Your task to perform on an android device: Go to Yahoo.com Image 0: 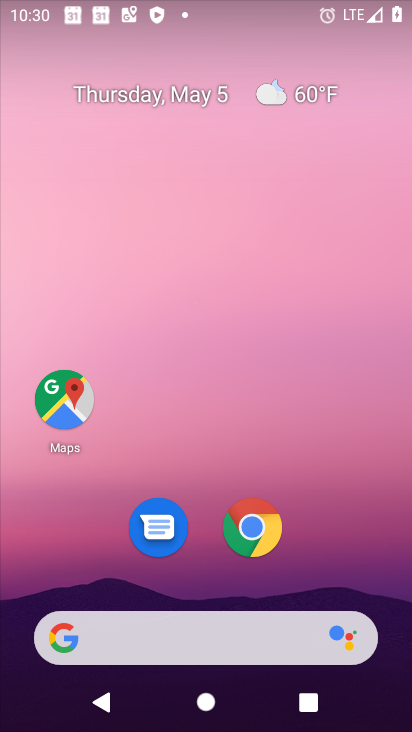
Step 0: click (220, 645)
Your task to perform on an android device: Go to Yahoo.com Image 1: 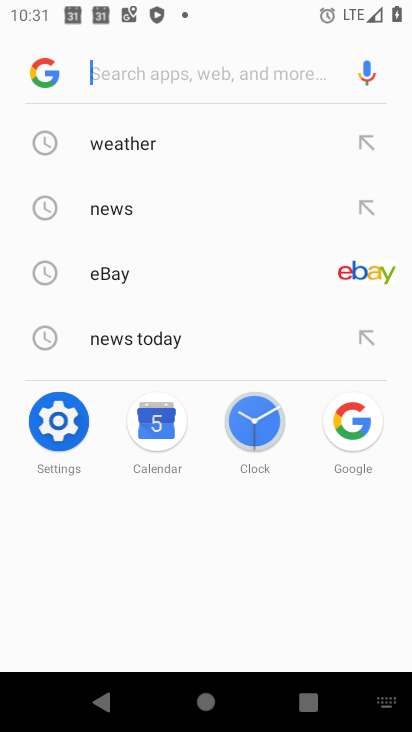
Step 1: type "yahoo.com"
Your task to perform on an android device: Go to Yahoo.com Image 2: 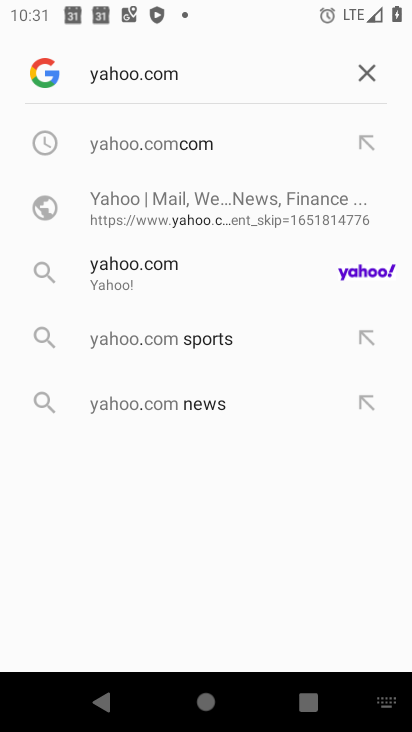
Step 2: click (241, 134)
Your task to perform on an android device: Go to Yahoo.com Image 3: 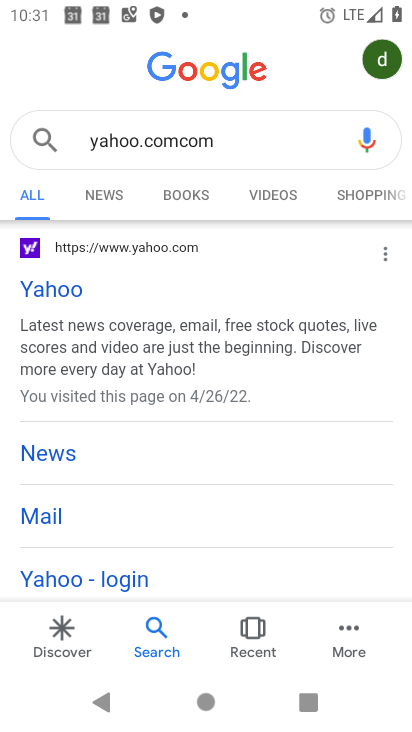
Step 3: click (76, 257)
Your task to perform on an android device: Go to Yahoo.com Image 4: 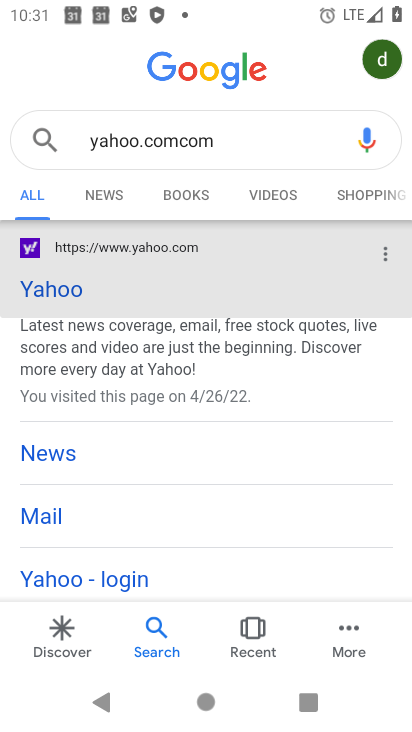
Step 4: click (92, 248)
Your task to perform on an android device: Go to Yahoo.com Image 5: 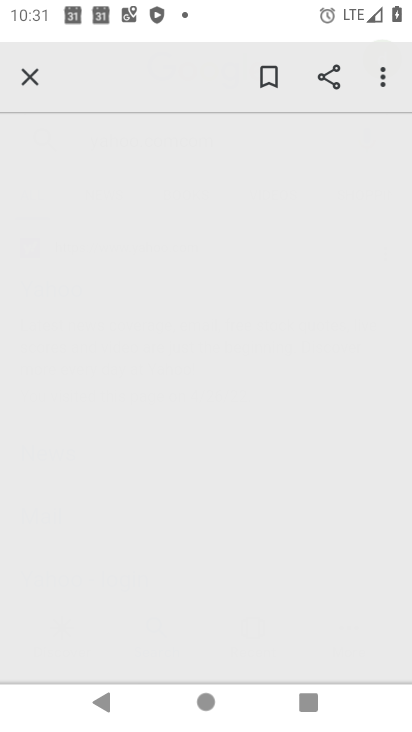
Step 5: click (109, 244)
Your task to perform on an android device: Go to Yahoo.com Image 6: 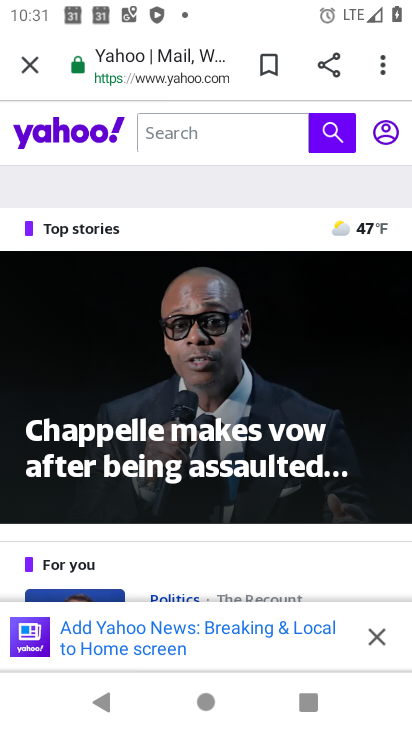
Step 6: task complete